Your task to perform on an android device: Is it going to rain today? Image 0: 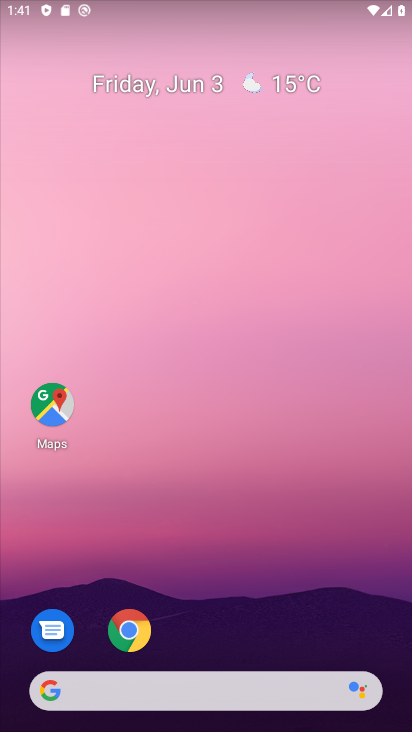
Step 0: drag from (0, 242) to (373, 306)
Your task to perform on an android device: Is it going to rain today? Image 1: 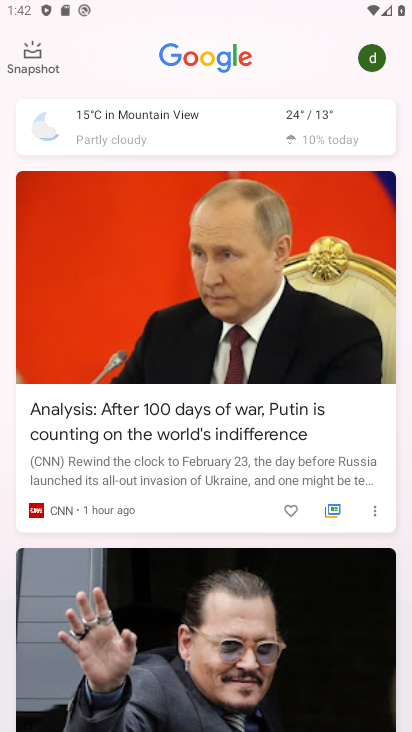
Step 1: click (305, 118)
Your task to perform on an android device: Is it going to rain today? Image 2: 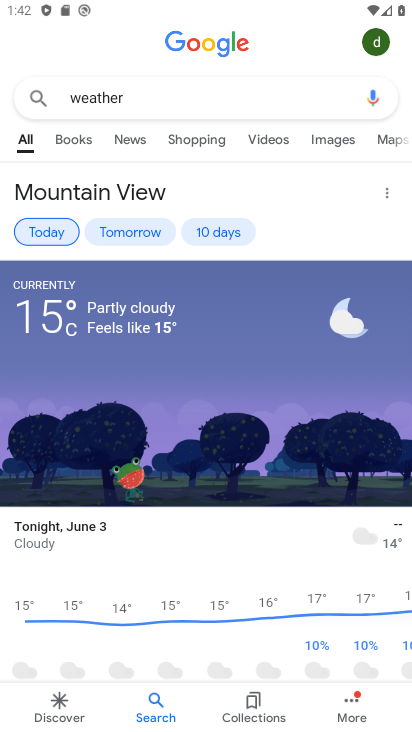
Step 2: click (56, 231)
Your task to perform on an android device: Is it going to rain today? Image 3: 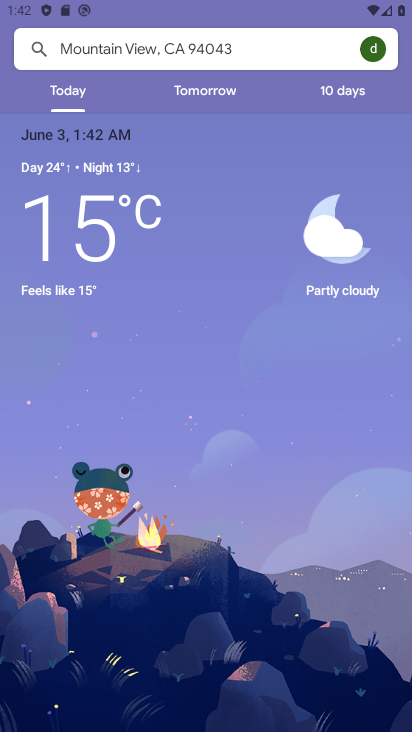
Step 3: task complete